Your task to perform on an android device: turn off translation in the chrome app Image 0: 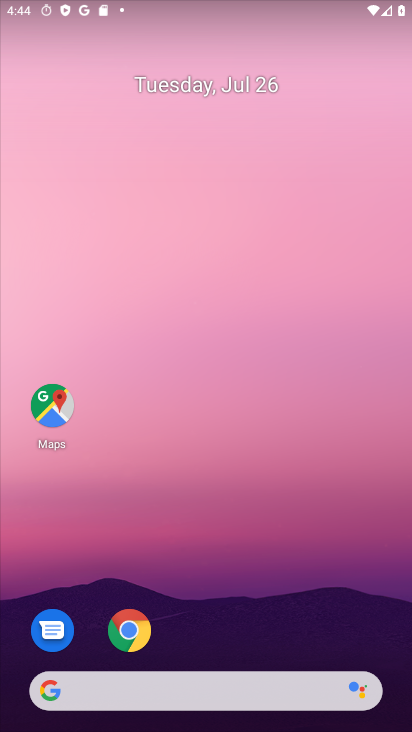
Step 0: drag from (258, 486) to (233, 74)
Your task to perform on an android device: turn off translation in the chrome app Image 1: 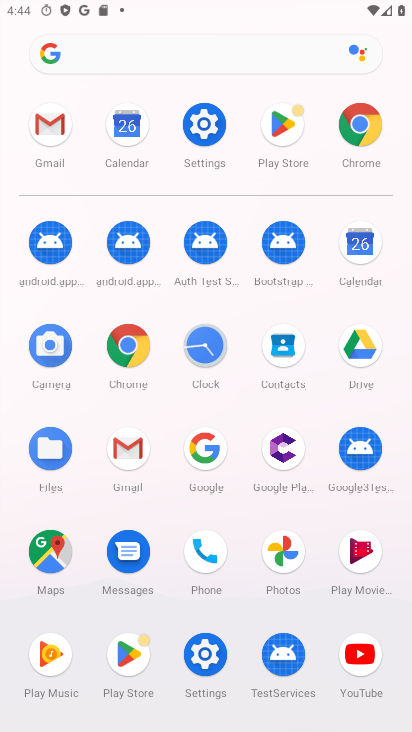
Step 1: click (354, 130)
Your task to perform on an android device: turn off translation in the chrome app Image 2: 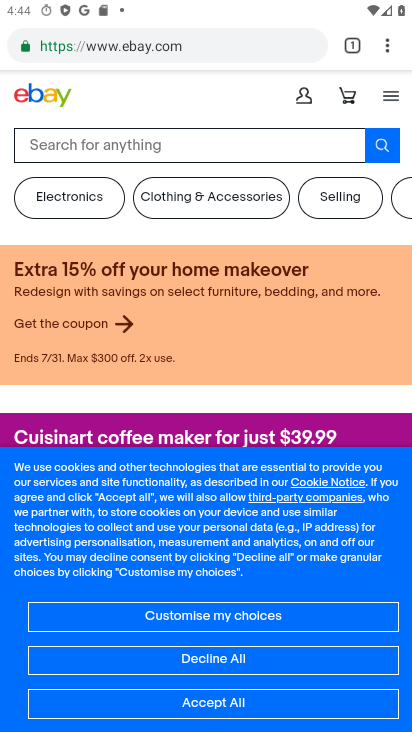
Step 2: drag from (384, 34) to (245, 563)
Your task to perform on an android device: turn off translation in the chrome app Image 3: 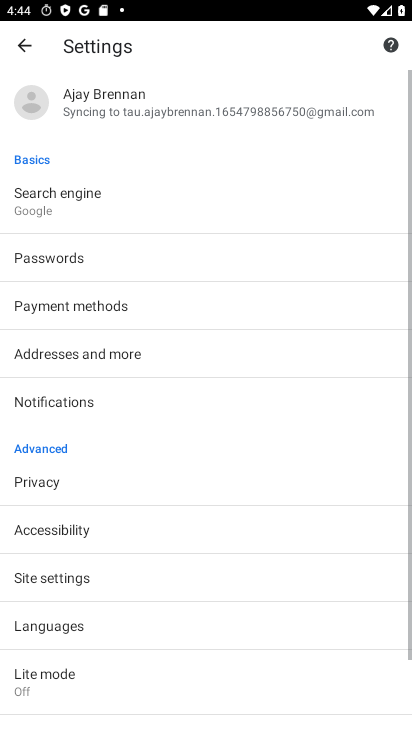
Step 3: drag from (197, 667) to (288, 165)
Your task to perform on an android device: turn off translation in the chrome app Image 4: 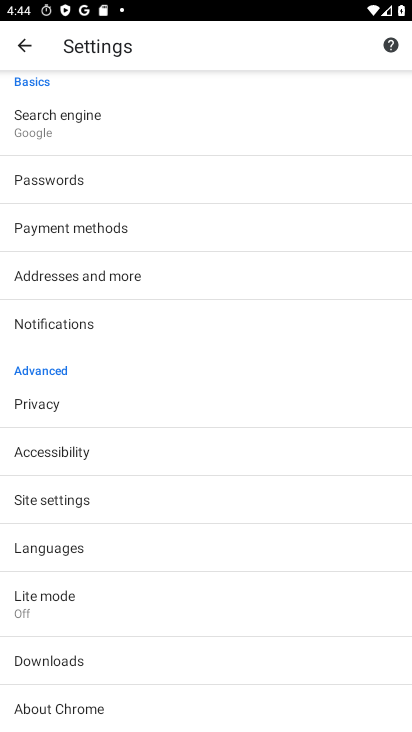
Step 4: click (67, 557)
Your task to perform on an android device: turn off translation in the chrome app Image 5: 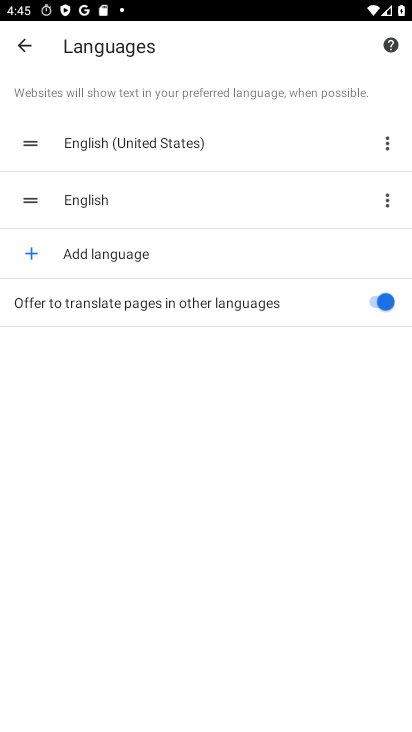
Step 5: click (373, 292)
Your task to perform on an android device: turn off translation in the chrome app Image 6: 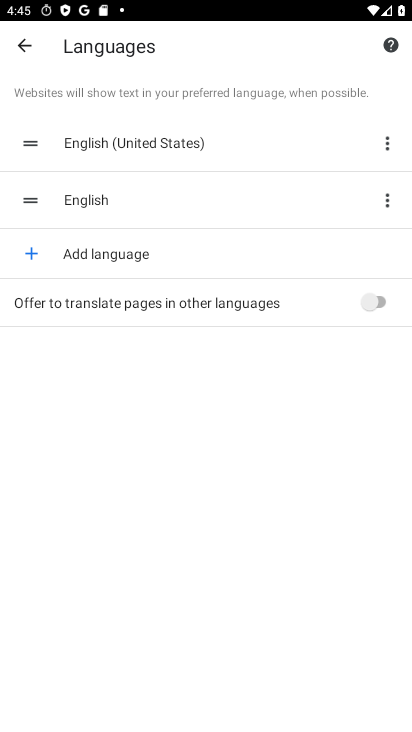
Step 6: task complete